Your task to perform on an android device: Play the last video I watched on Youtube Image 0: 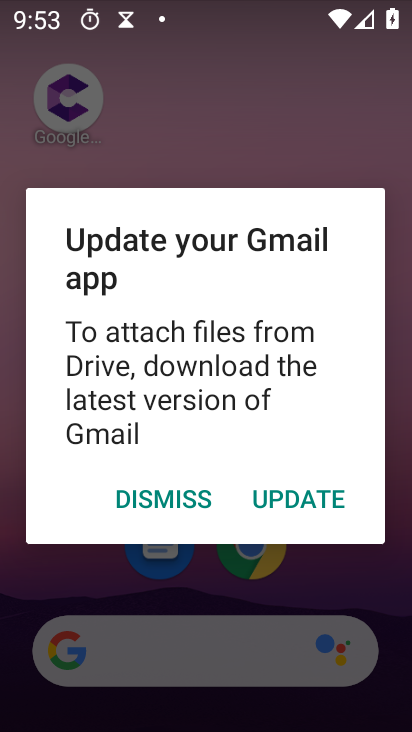
Step 0: press back button
Your task to perform on an android device: Play the last video I watched on Youtube Image 1: 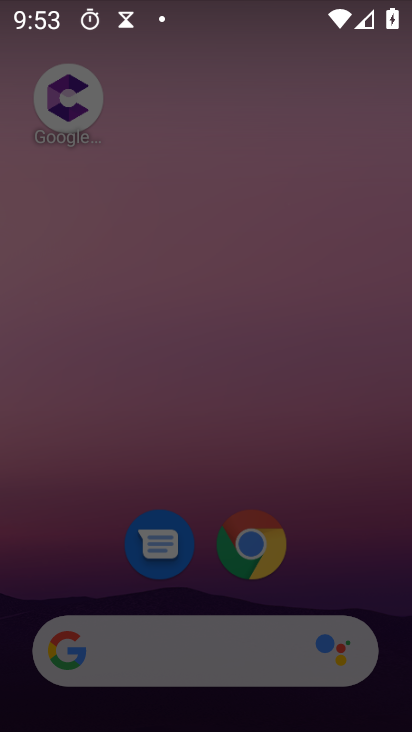
Step 1: press home button
Your task to perform on an android device: Play the last video I watched on Youtube Image 2: 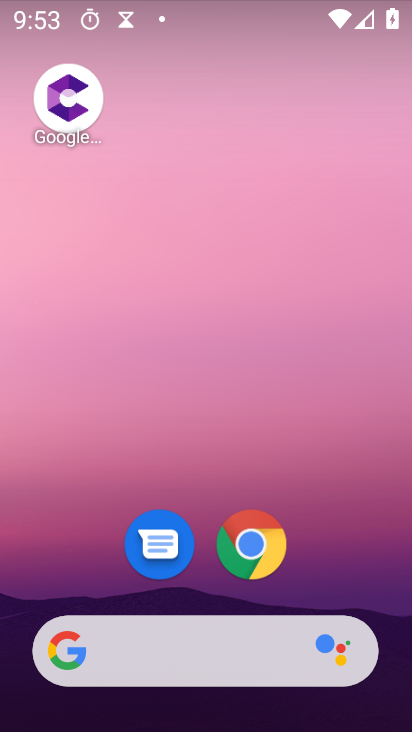
Step 2: drag from (348, 582) to (296, 118)
Your task to perform on an android device: Play the last video I watched on Youtube Image 3: 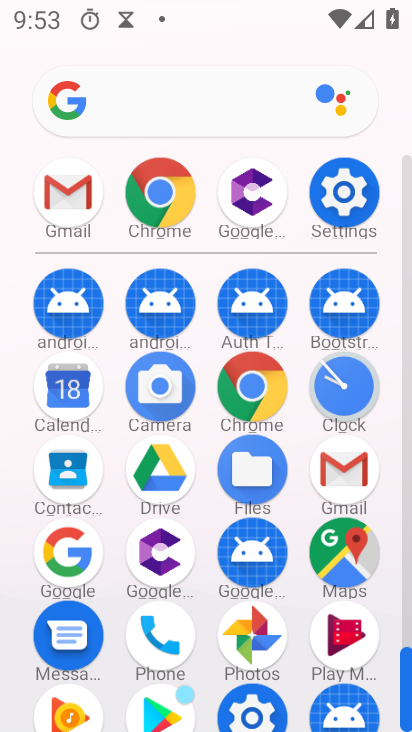
Step 3: drag from (393, 601) to (377, 368)
Your task to perform on an android device: Play the last video I watched on Youtube Image 4: 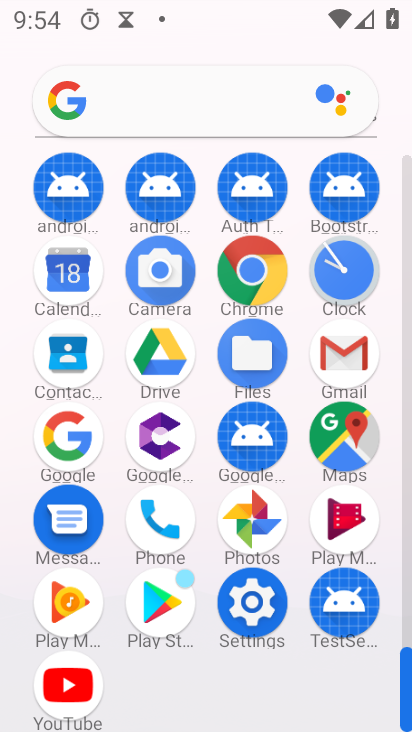
Step 4: click (69, 683)
Your task to perform on an android device: Play the last video I watched on Youtube Image 5: 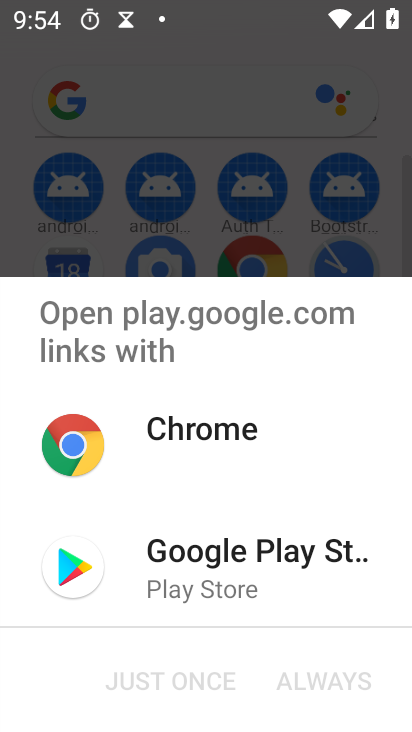
Step 5: click (214, 554)
Your task to perform on an android device: Play the last video I watched on Youtube Image 6: 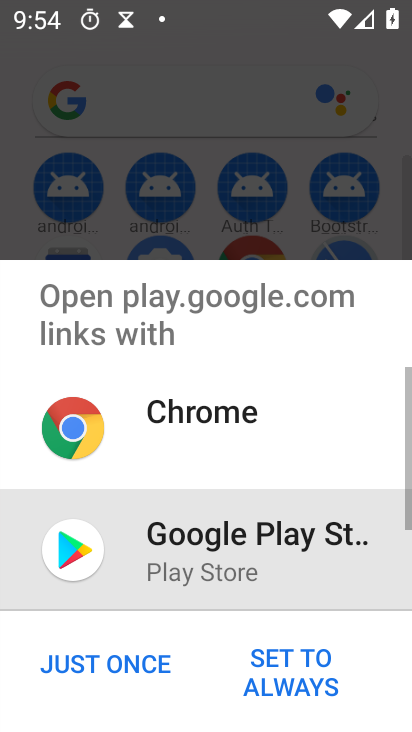
Step 6: click (125, 664)
Your task to perform on an android device: Play the last video I watched on Youtube Image 7: 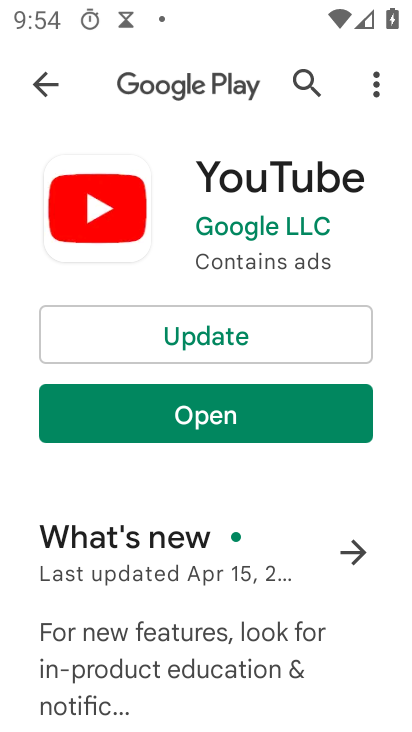
Step 7: click (286, 348)
Your task to perform on an android device: Play the last video I watched on Youtube Image 8: 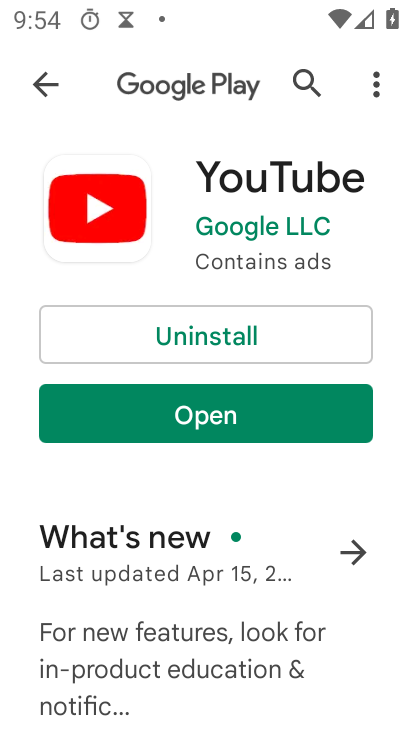
Step 8: click (289, 402)
Your task to perform on an android device: Play the last video I watched on Youtube Image 9: 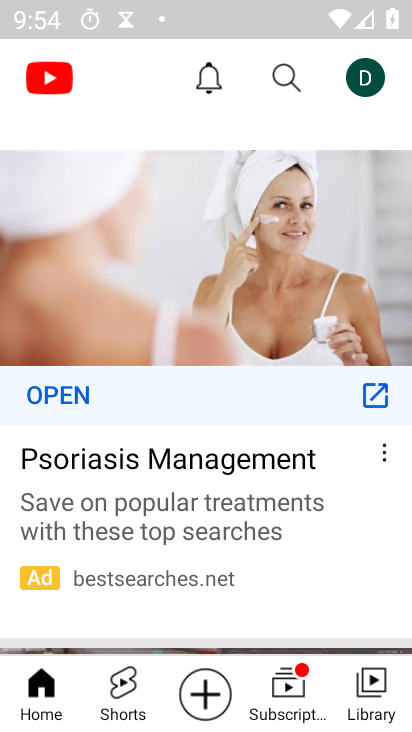
Step 9: click (368, 678)
Your task to perform on an android device: Play the last video I watched on Youtube Image 10: 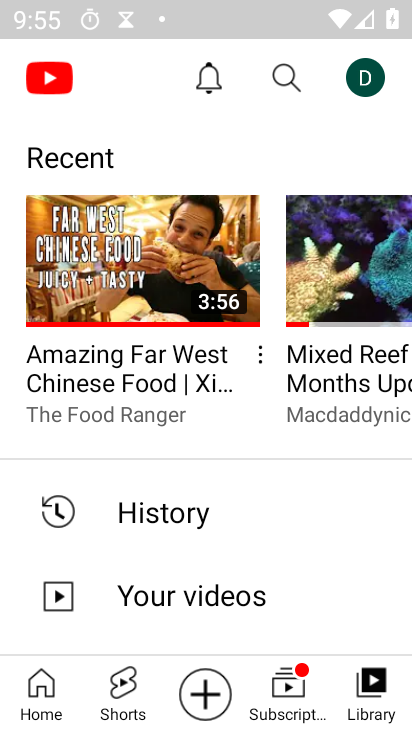
Step 10: click (160, 297)
Your task to perform on an android device: Play the last video I watched on Youtube Image 11: 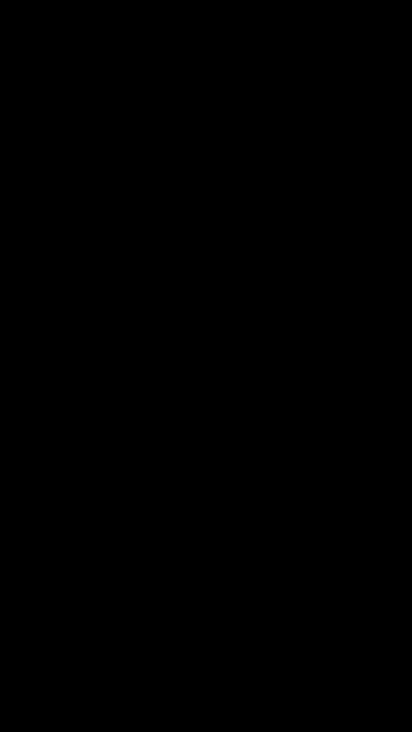
Step 11: task complete